Your task to perform on an android device: turn off sleep mode Image 0: 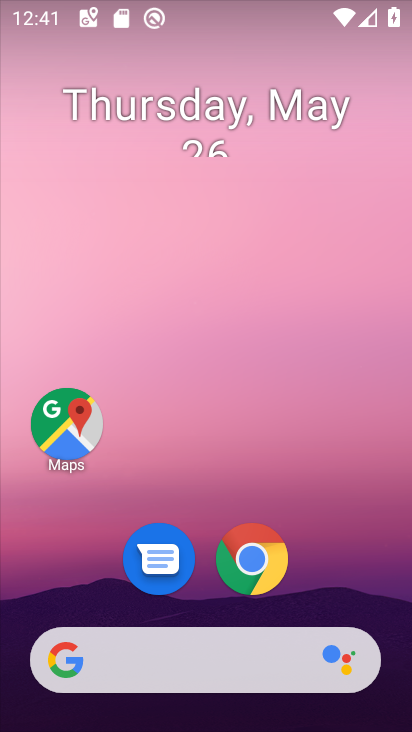
Step 0: press home button
Your task to perform on an android device: turn off sleep mode Image 1: 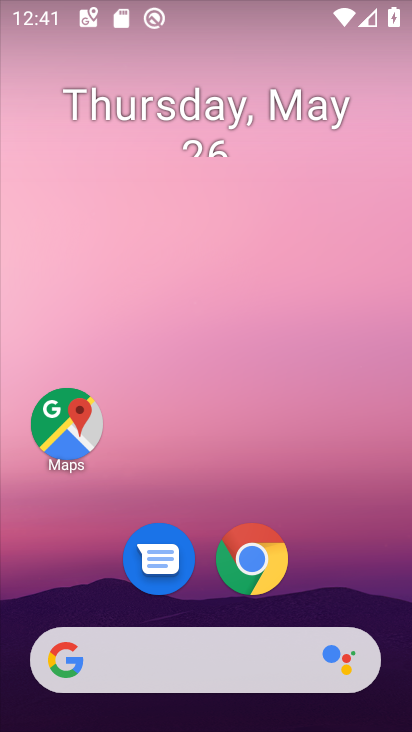
Step 1: drag from (333, 596) to (368, 48)
Your task to perform on an android device: turn off sleep mode Image 2: 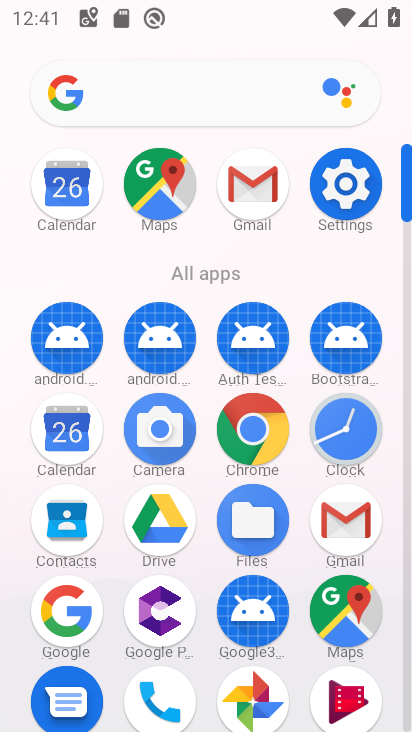
Step 2: click (339, 176)
Your task to perform on an android device: turn off sleep mode Image 3: 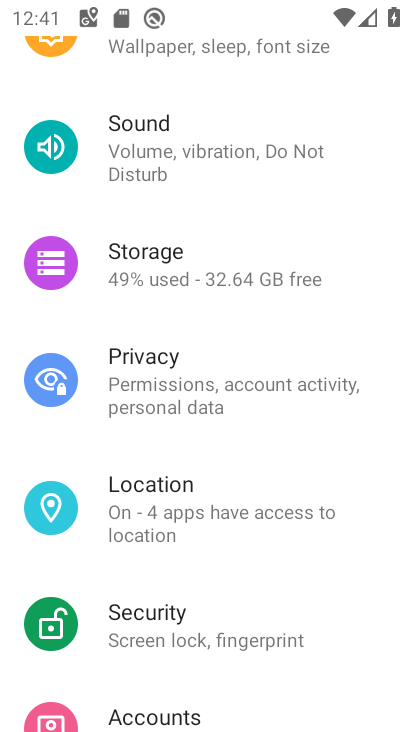
Step 3: drag from (233, 200) to (209, 617)
Your task to perform on an android device: turn off sleep mode Image 4: 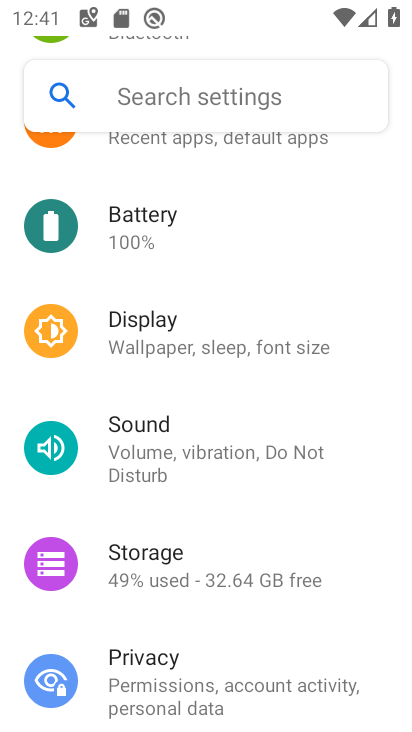
Step 4: click (134, 339)
Your task to perform on an android device: turn off sleep mode Image 5: 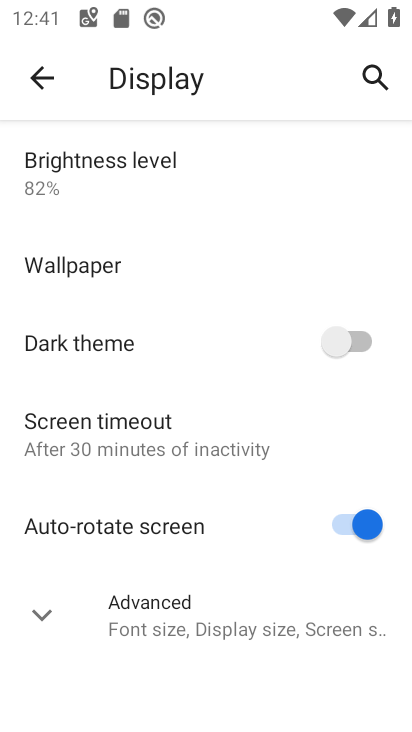
Step 5: task complete